Your task to perform on an android device: Search for pizza restaurants on Maps Image 0: 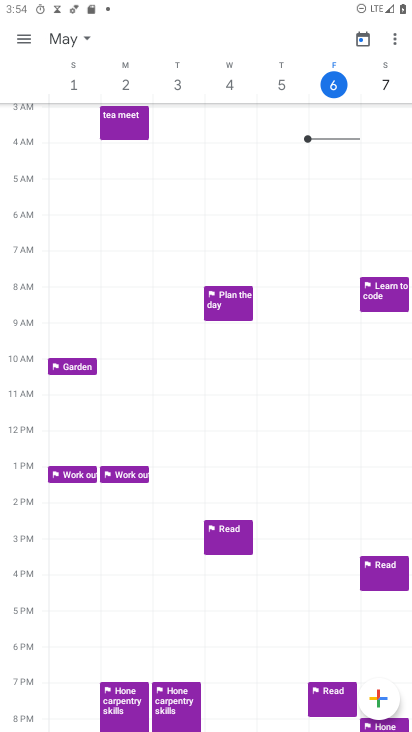
Step 0: press home button
Your task to perform on an android device: Search for pizza restaurants on Maps Image 1: 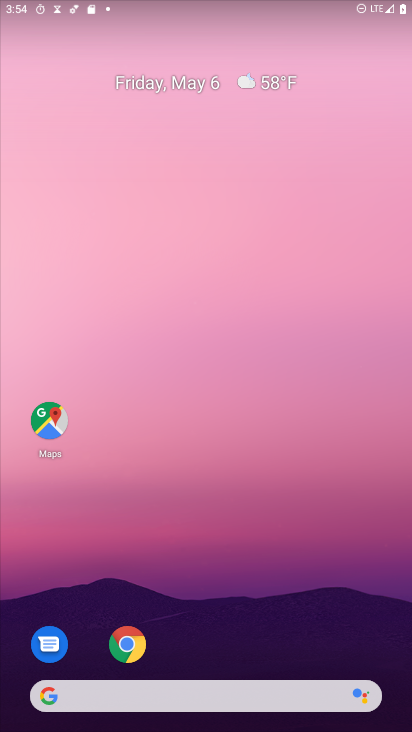
Step 1: drag from (224, 715) to (224, 166)
Your task to perform on an android device: Search for pizza restaurants on Maps Image 2: 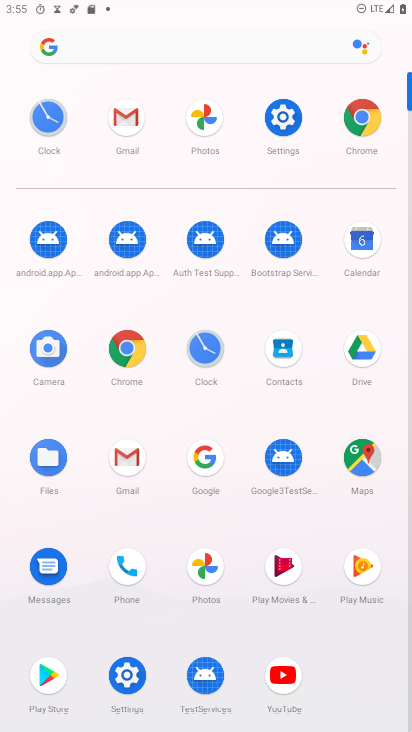
Step 2: click (362, 461)
Your task to perform on an android device: Search for pizza restaurants on Maps Image 3: 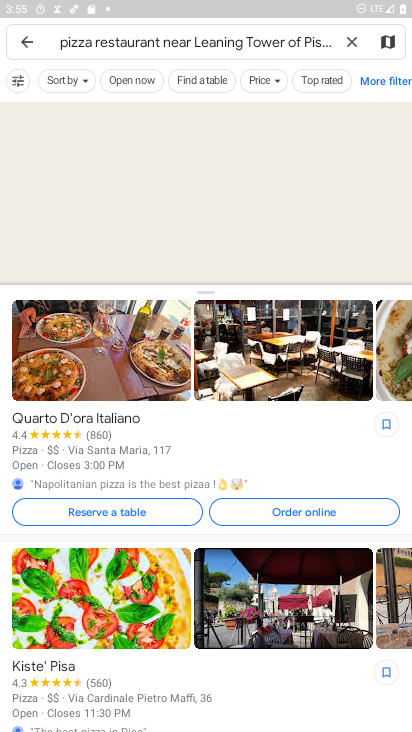
Step 3: click (350, 40)
Your task to perform on an android device: Search for pizza restaurants on Maps Image 4: 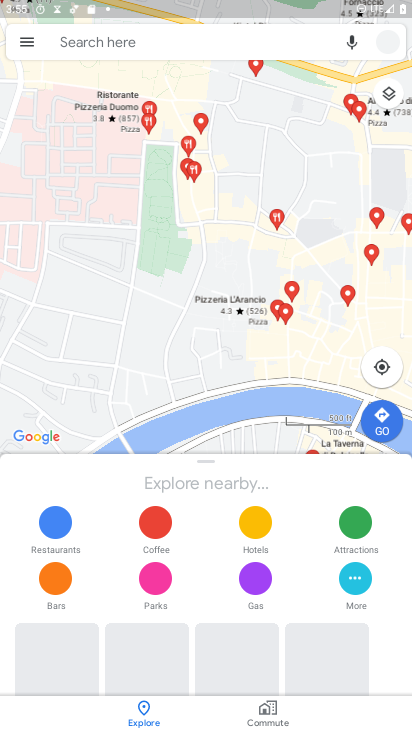
Step 4: click (170, 42)
Your task to perform on an android device: Search for pizza restaurants on Maps Image 5: 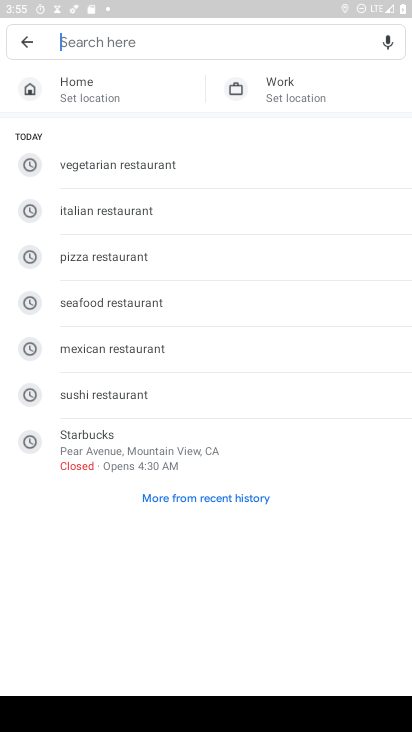
Step 5: type "pizza restaurants"
Your task to perform on an android device: Search for pizza restaurants on Maps Image 6: 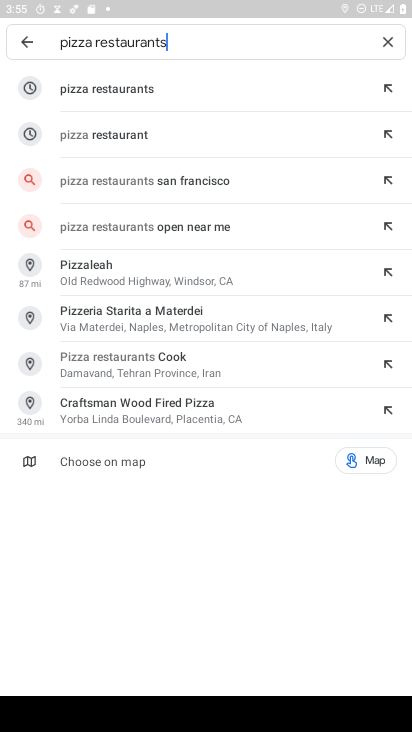
Step 6: click (128, 91)
Your task to perform on an android device: Search for pizza restaurants on Maps Image 7: 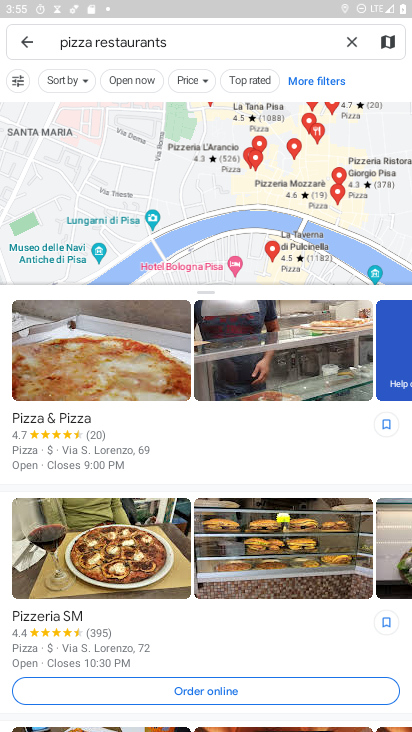
Step 7: task complete